Your task to perform on an android device: turn off javascript in the chrome app Image 0: 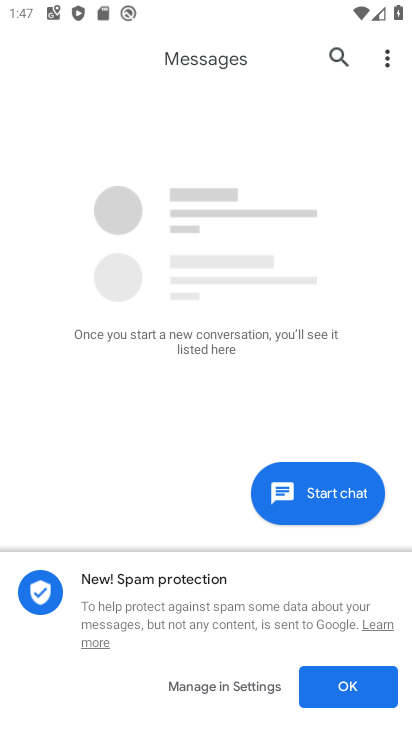
Step 0: press home button
Your task to perform on an android device: turn off javascript in the chrome app Image 1: 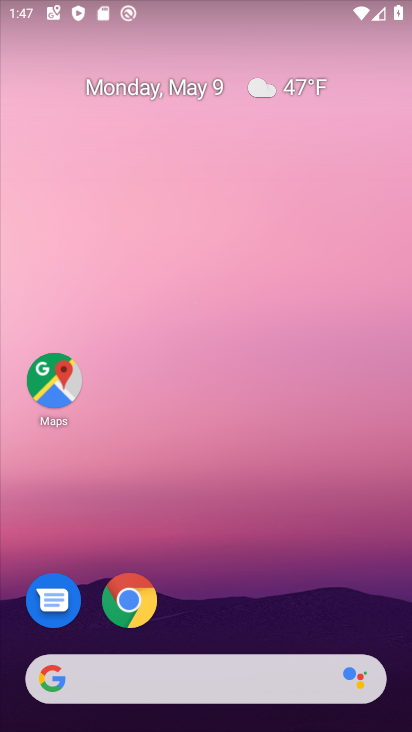
Step 1: click (124, 603)
Your task to perform on an android device: turn off javascript in the chrome app Image 2: 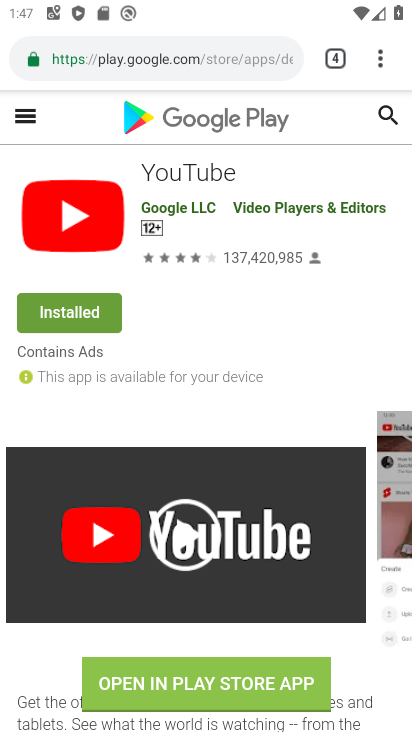
Step 2: click (388, 50)
Your task to perform on an android device: turn off javascript in the chrome app Image 3: 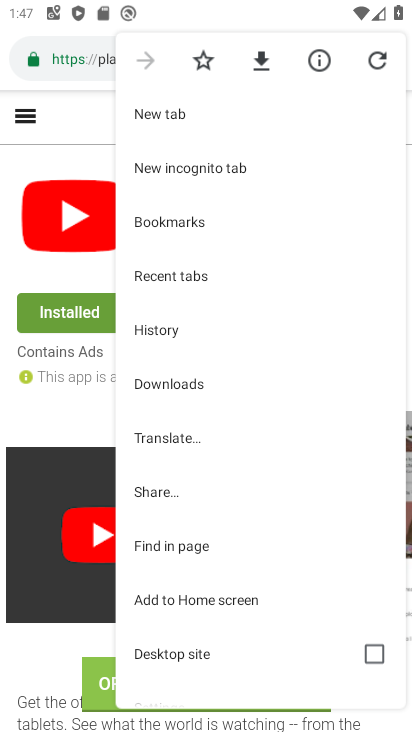
Step 3: drag from (190, 619) to (247, 204)
Your task to perform on an android device: turn off javascript in the chrome app Image 4: 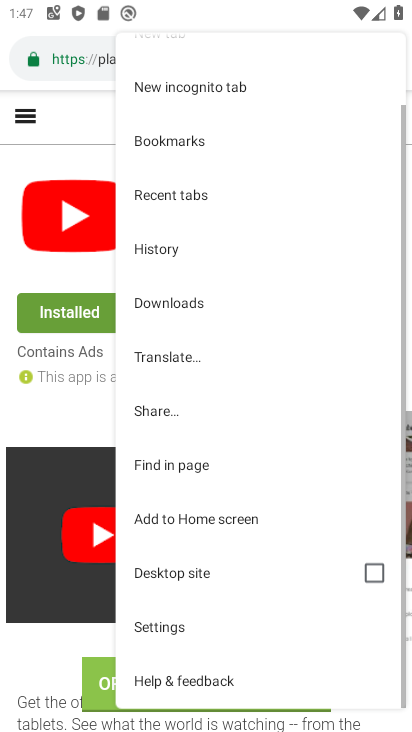
Step 4: click (189, 625)
Your task to perform on an android device: turn off javascript in the chrome app Image 5: 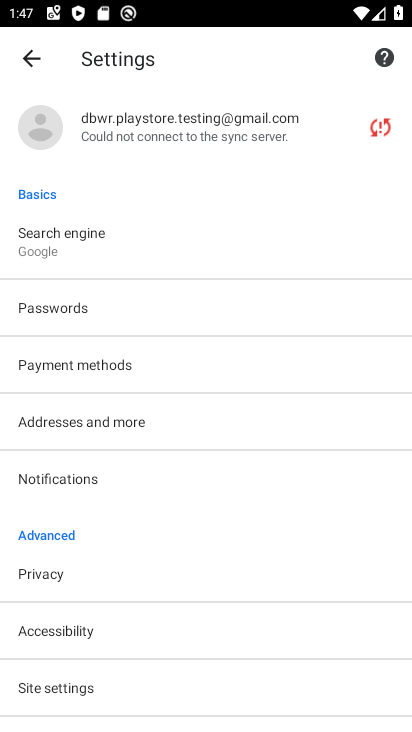
Step 5: drag from (146, 689) to (190, 348)
Your task to perform on an android device: turn off javascript in the chrome app Image 6: 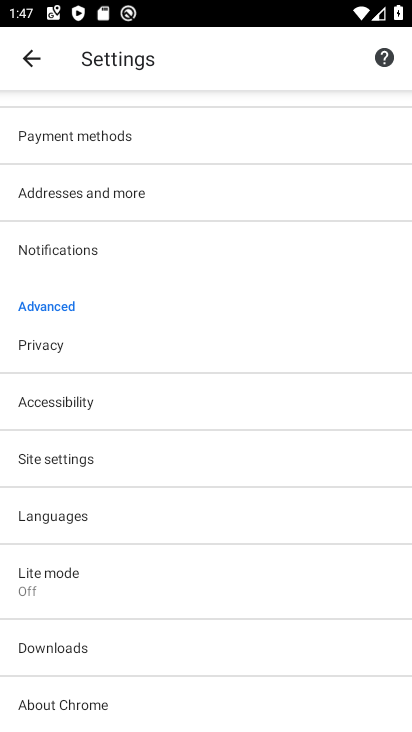
Step 6: click (113, 458)
Your task to perform on an android device: turn off javascript in the chrome app Image 7: 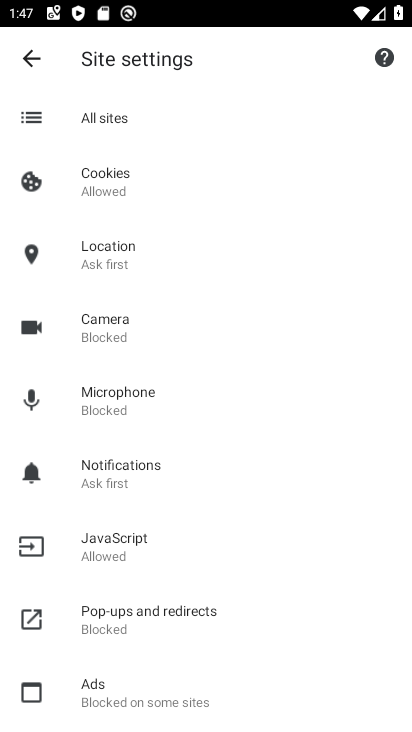
Step 7: click (165, 558)
Your task to perform on an android device: turn off javascript in the chrome app Image 8: 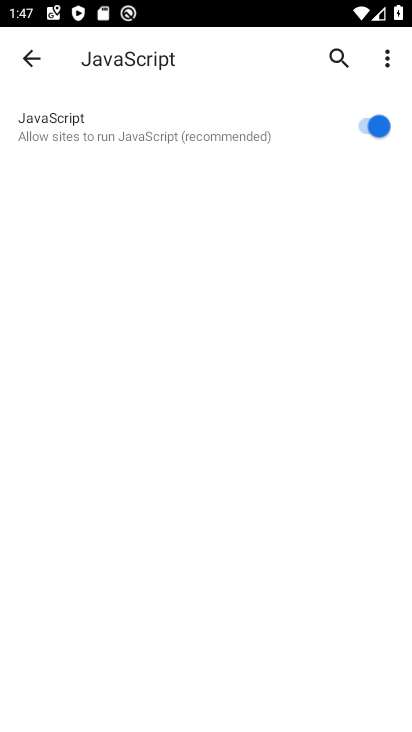
Step 8: click (363, 130)
Your task to perform on an android device: turn off javascript in the chrome app Image 9: 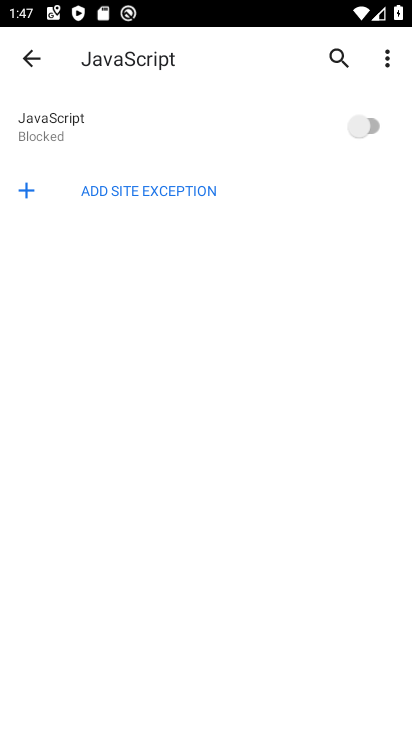
Step 9: task complete